Your task to perform on an android device: What's the weather going to be this weekend? Image 0: 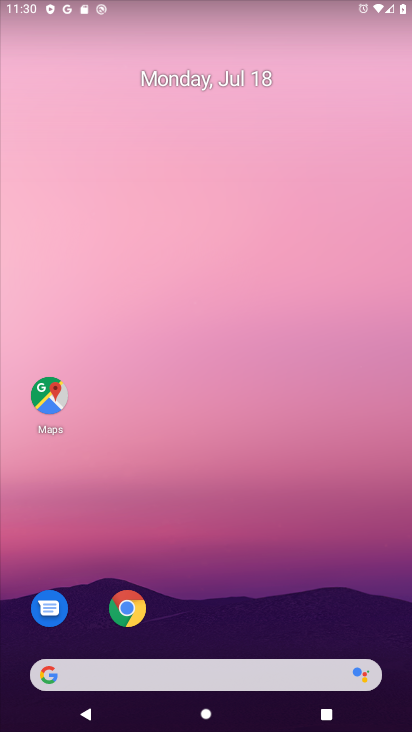
Step 0: click (179, 665)
Your task to perform on an android device: What's the weather going to be this weekend? Image 1: 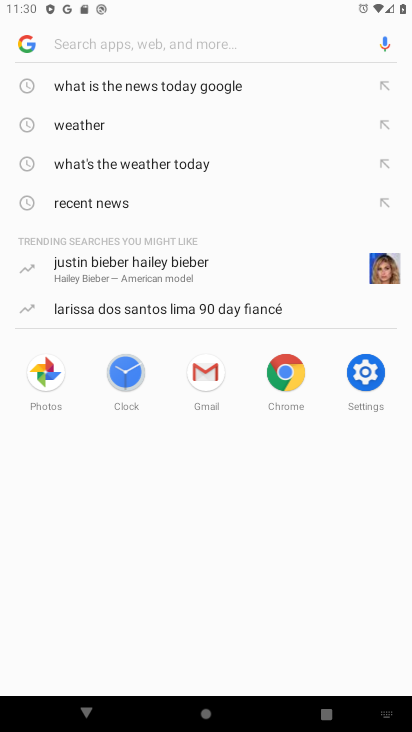
Step 1: type "what's the weather going to be this weekend"
Your task to perform on an android device: What's the weather going to be this weekend? Image 2: 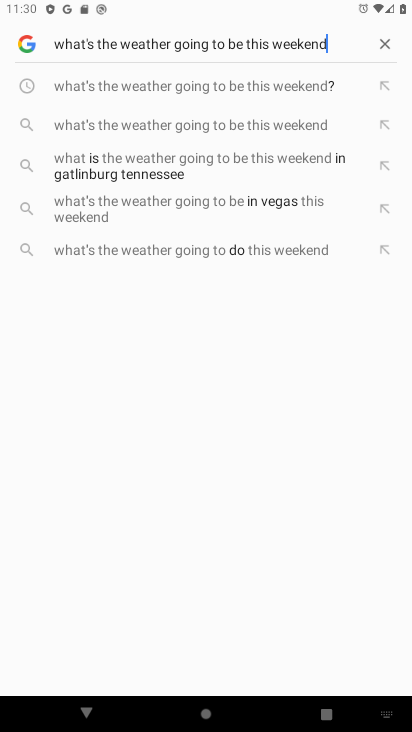
Step 2: click (155, 82)
Your task to perform on an android device: What's the weather going to be this weekend? Image 3: 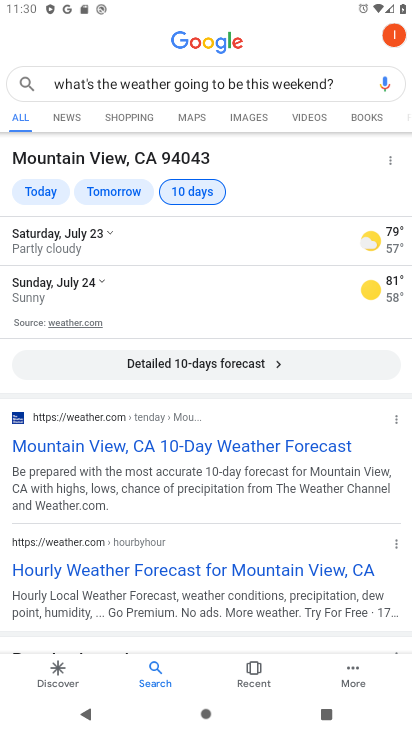
Step 3: task complete